Your task to perform on an android device: Go to ESPN.com Image 0: 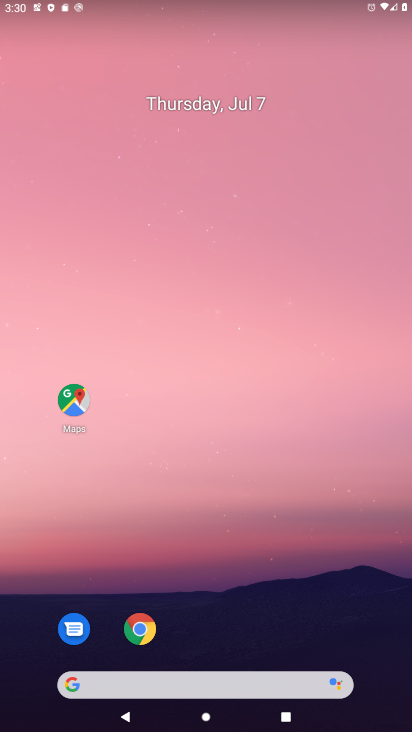
Step 0: click (145, 628)
Your task to perform on an android device: Go to ESPN.com Image 1: 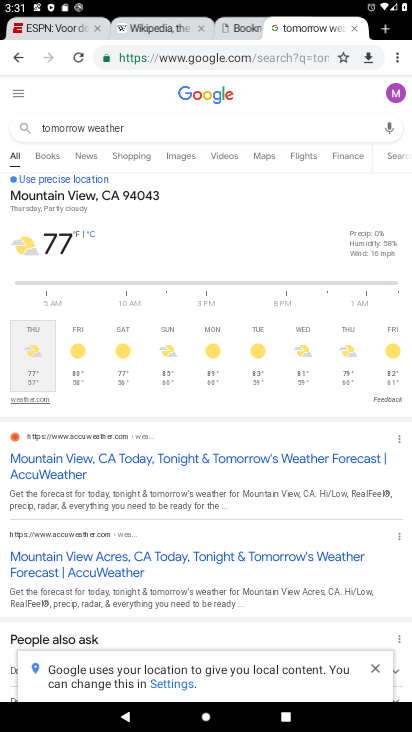
Step 1: click (382, 26)
Your task to perform on an android device: Go to ESPN.com Image 2: 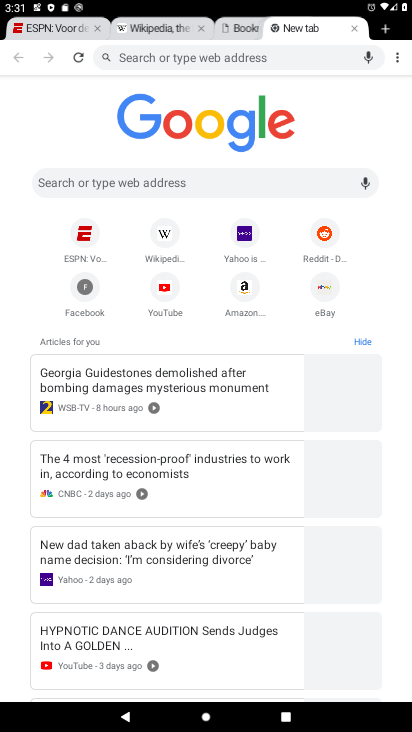
Step 2: click (51, 27)
Your task to perform on an android device: Go to ESPN.com Image 3: 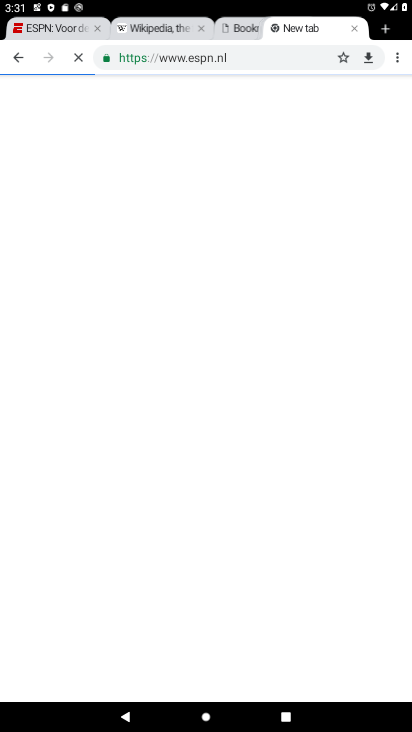
Step 3: click (51, 27)
Your task to perform on an android device: Go to ESPN.com Image 4: 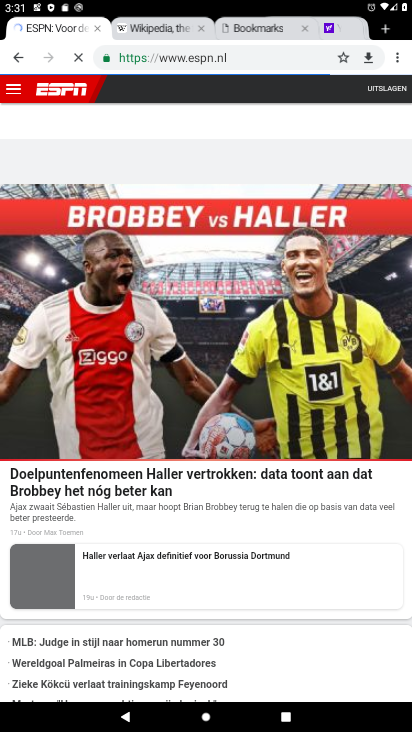
Step 4: task complete